Your task to perform on an android device: Add "usb-a" to the cart on costco, then select checkout. Image 0: 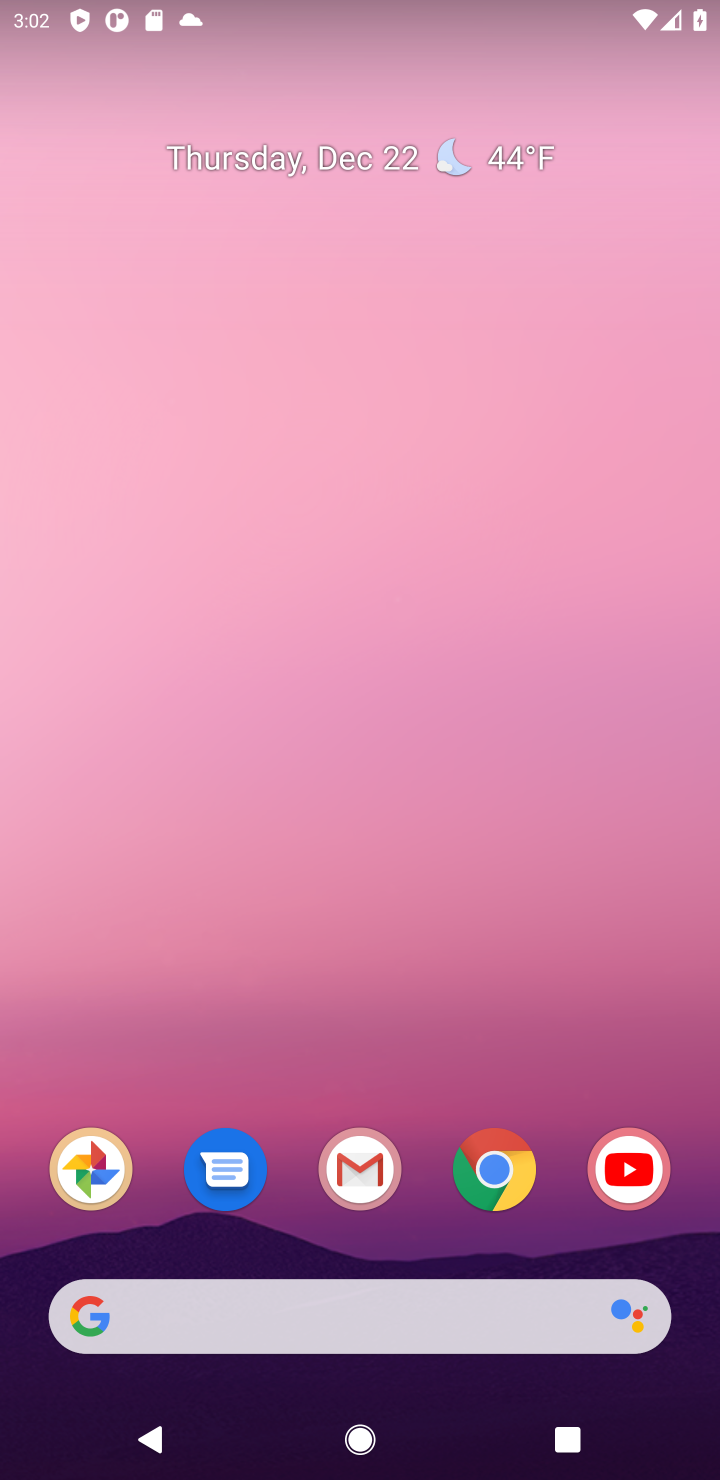
Step 0: click (482, 1178)
Your task to perform on an android device: Add "usb-a" to the cart on costco, then select checkout. Image 1: 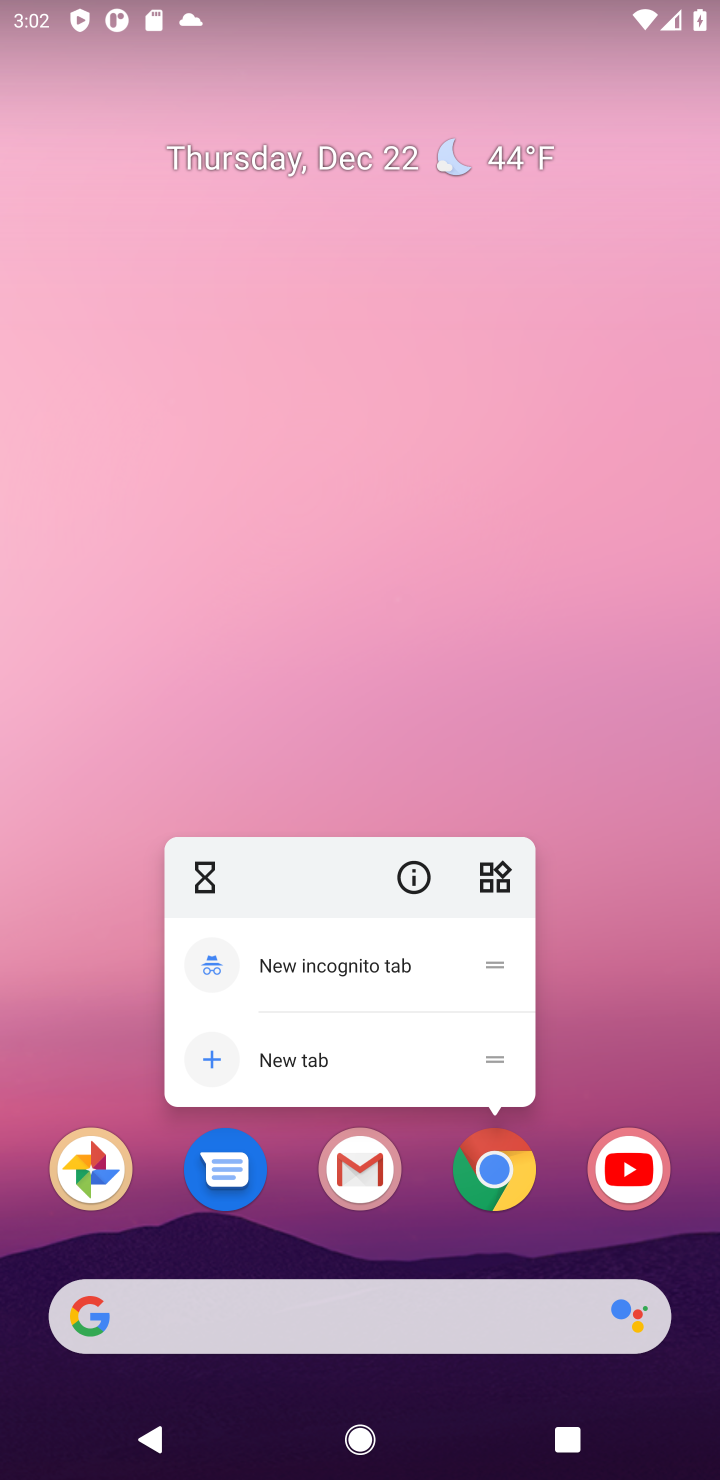
Step 1: click (493, 1175)
Your task to perform on an android device: Add "usb-a" to the cart on costco, then select checkout. Image 2: 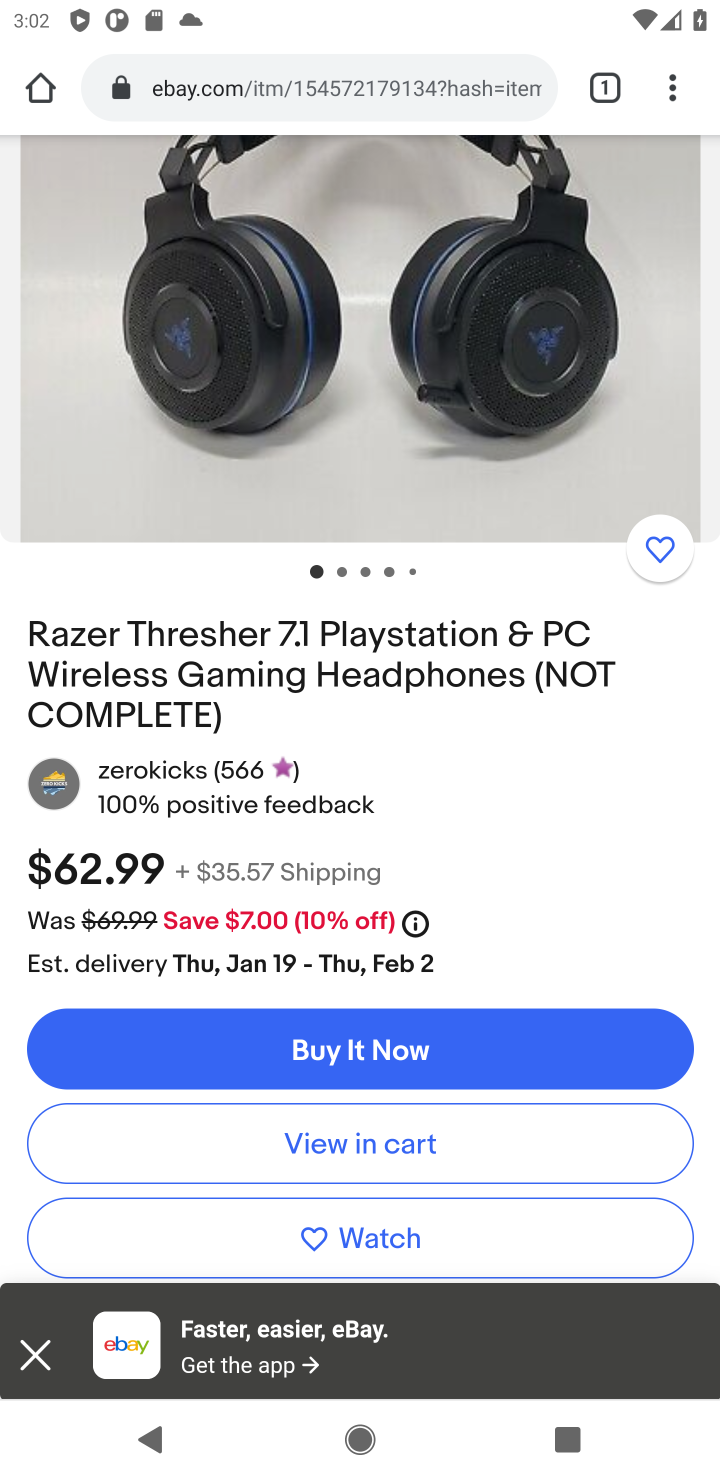
Step 2: click (275, 90)
Your task to perform on an android device: Add "usb-a" to the cart on costco, then select checkout. Image 3: 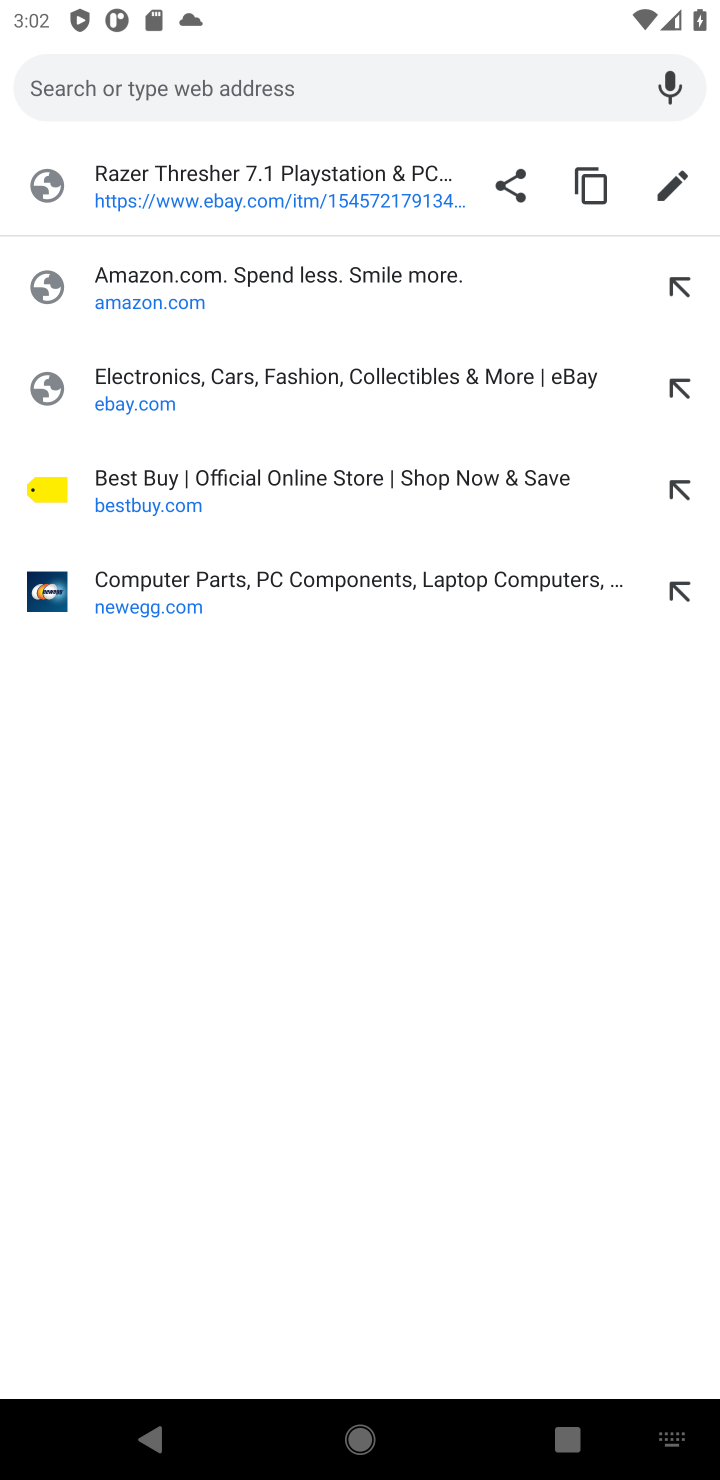
Step 3: type "costco.com"
Your task to perform on an android device: Add "usb-a" to the cart on costco, then select checkout. Image 4: 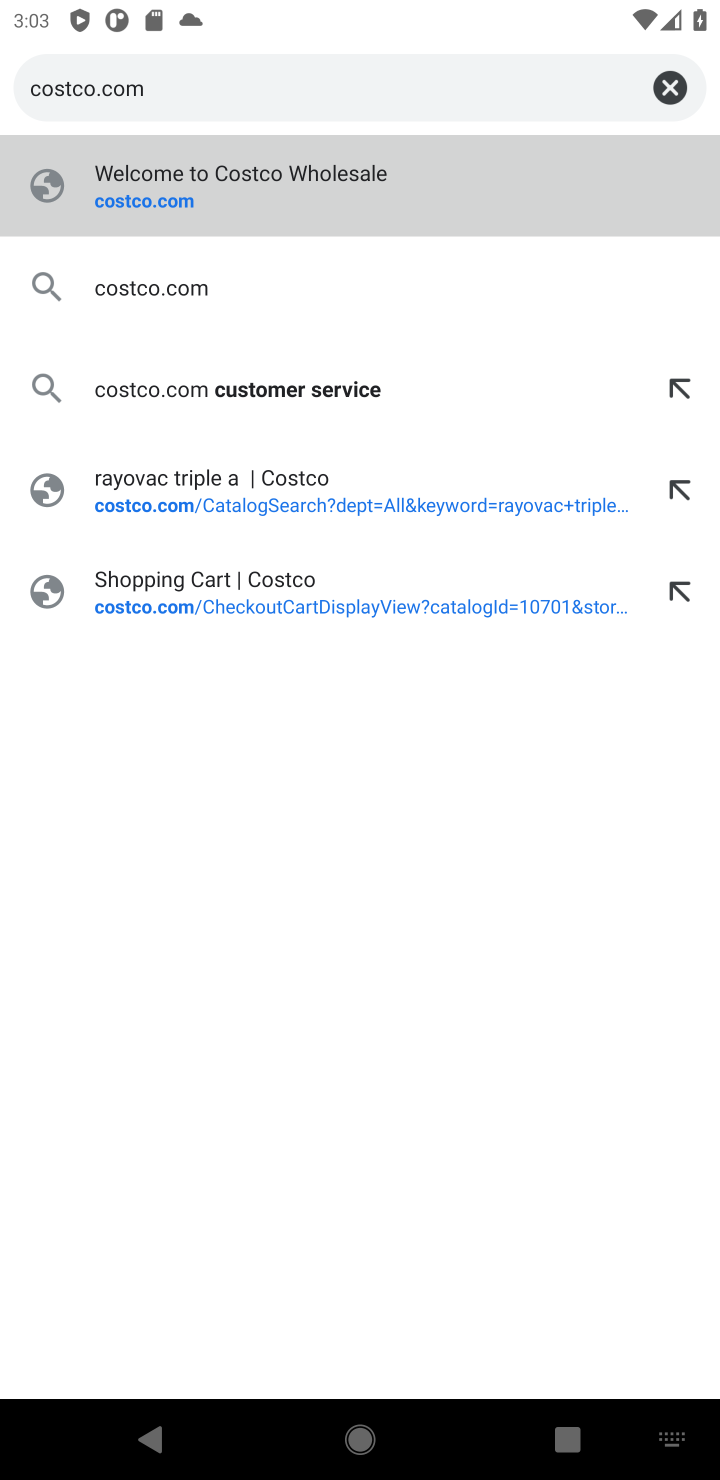
Step 4: click (161, 208)
Your task to perform on an android device: Add "usb-a" to the cart on costco, then select checkout. Image 5: 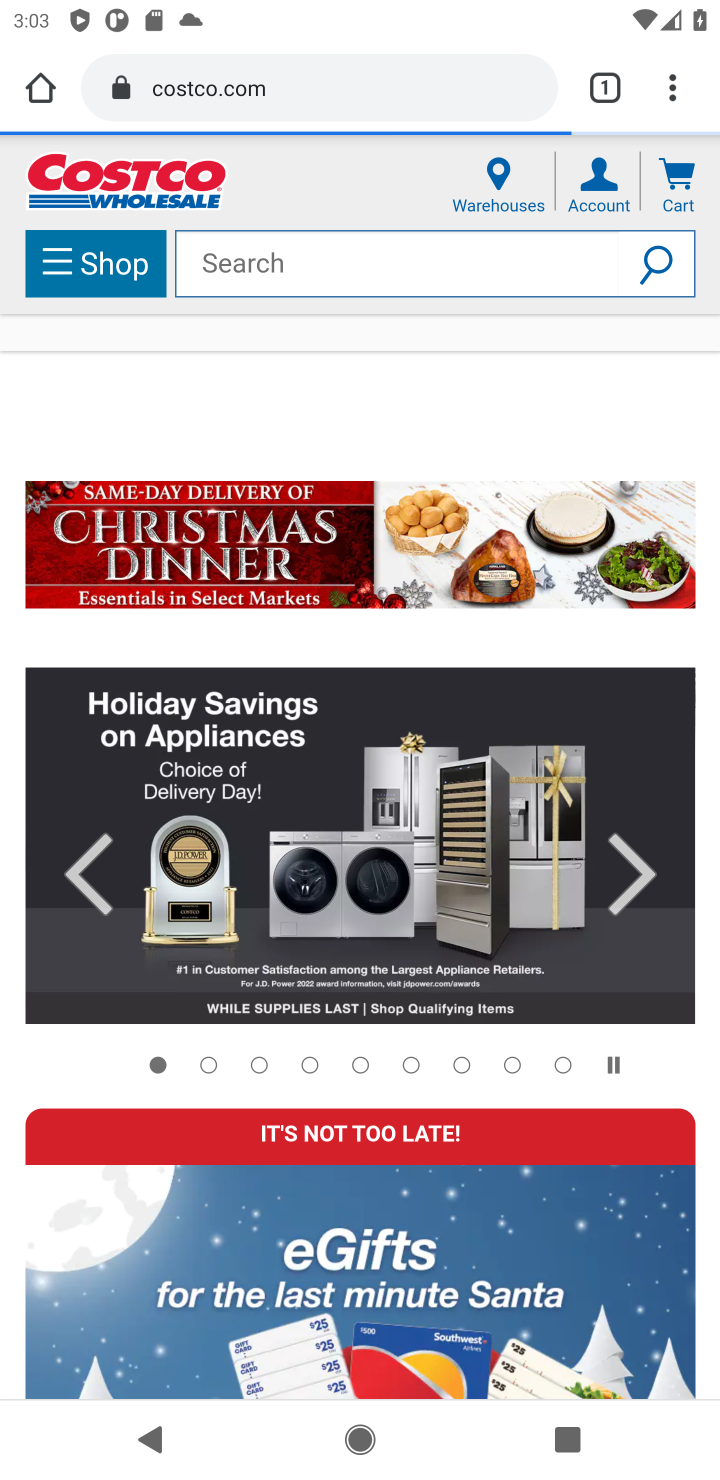
Step 5: click (253, 268)
Your task to perform on an android device: Add "usb-a" to the cart on costco, then select checkout. Image 6: 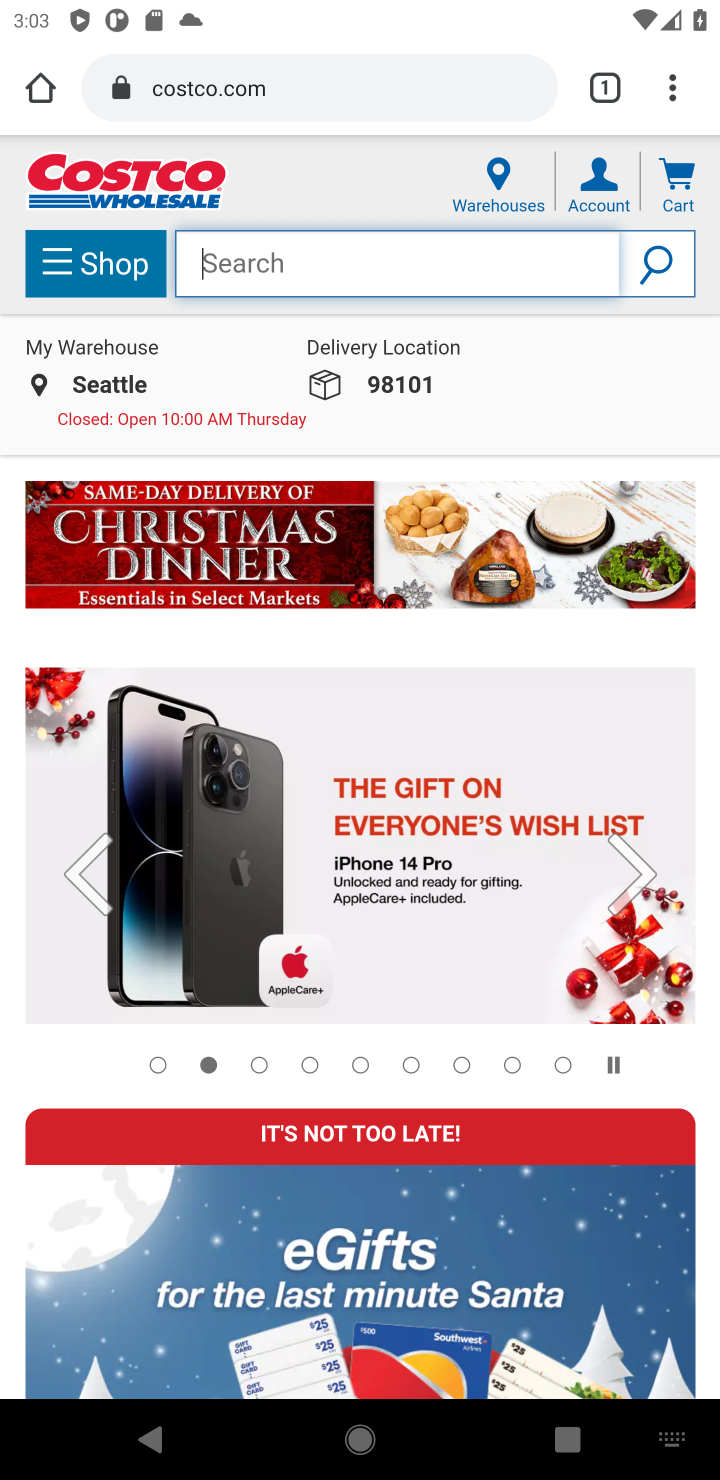
Step 6: type "usb-a"
Your task to perform on an android device: Add "usb-a" to the cart on costco, then select checkout. Image 7: 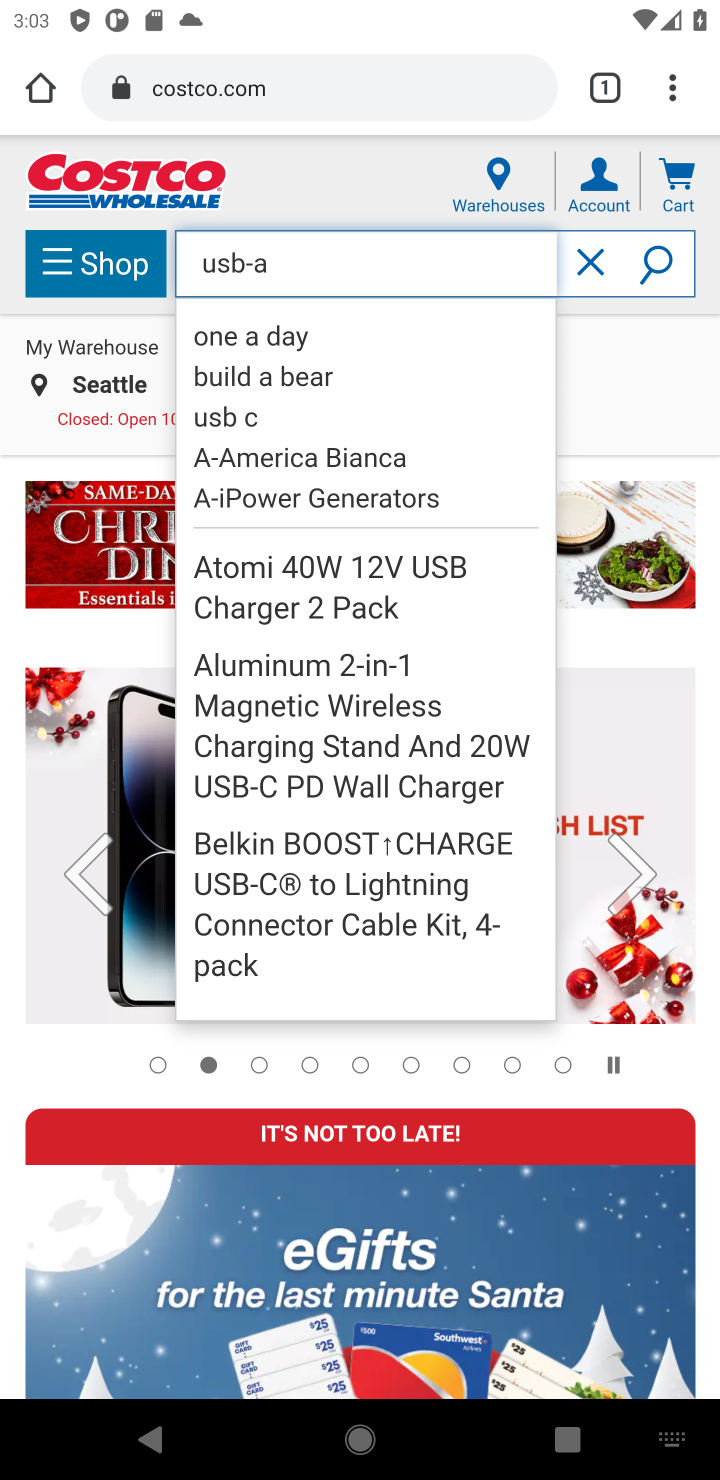
Step 7: click (656, 268)
Your task to perform on an android device: Add "usb-a" to the cart on costco, then select checkout. Image 8: 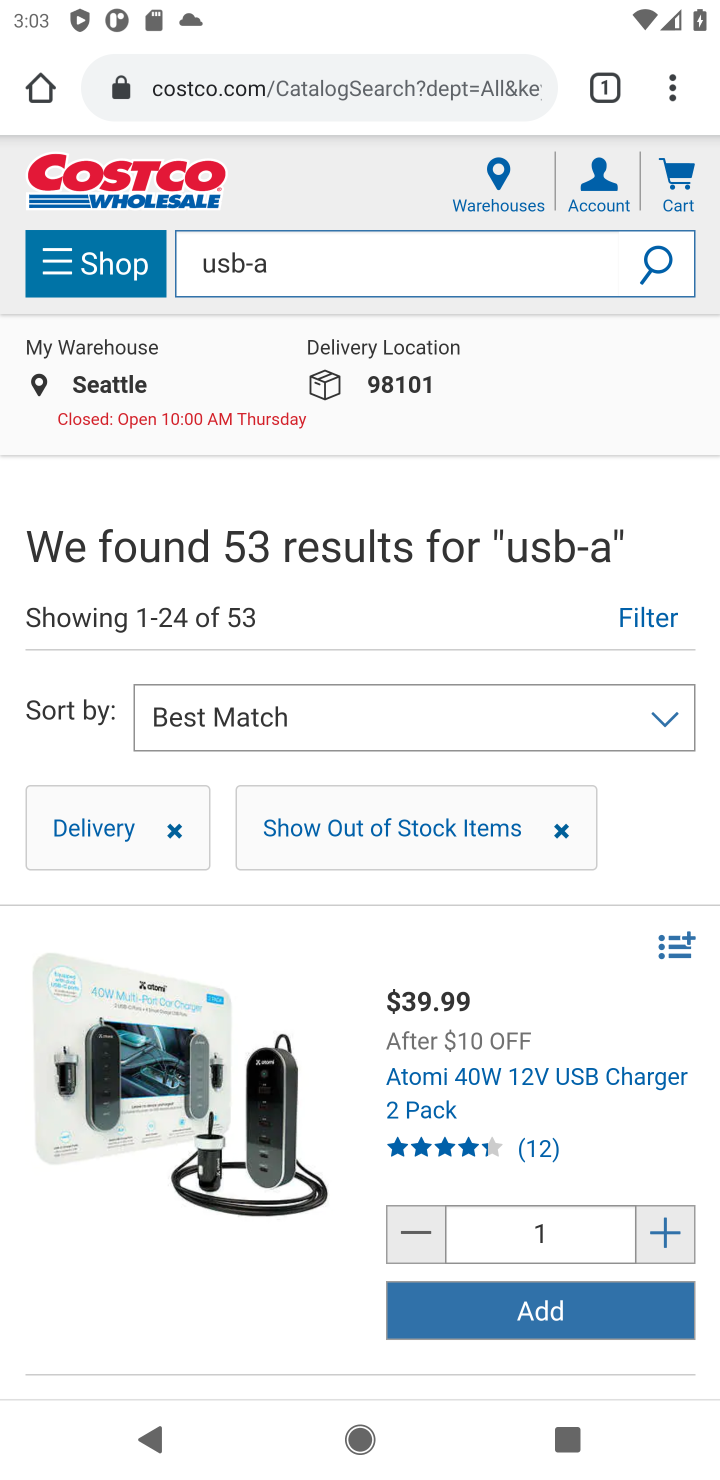
Step 8: task complete